Your task to perform on an android device: Open Wikipedia Image 0: 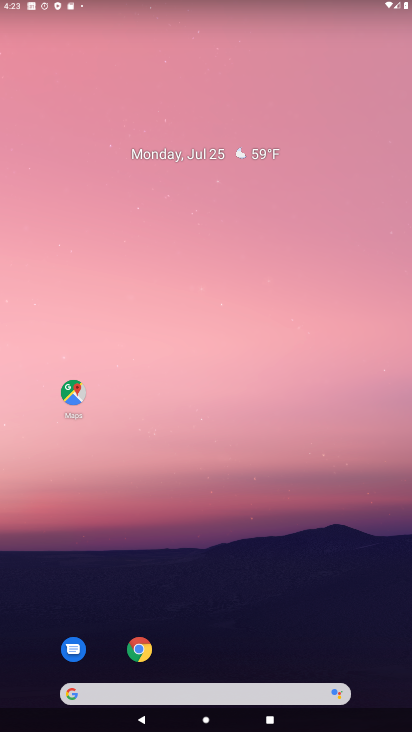
Step 0: drag from (209, 721) to (192, 103)
Your task to perform on an android device: Open Wikipedia Image 1: 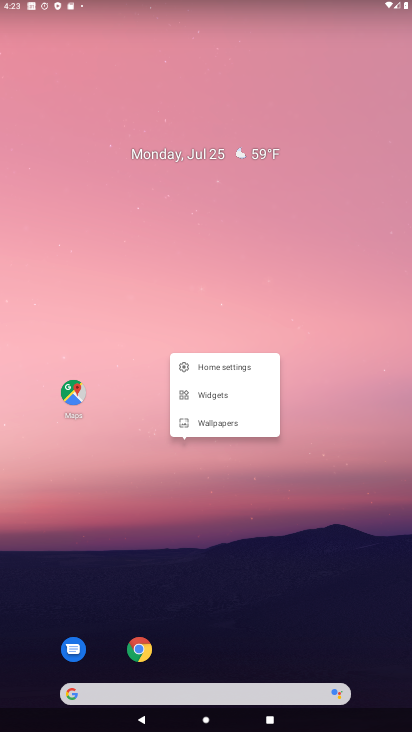
Step 1: drag from (371, 641) to (275, 62)
Your task to perform on an android device: Open Wikipedia Image 2: 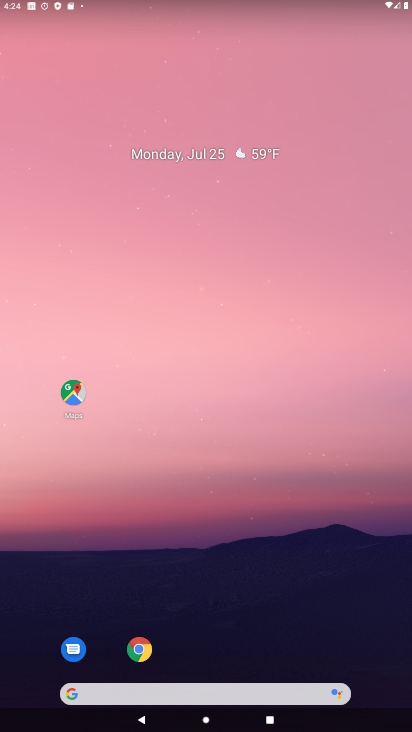
Step 2: drag from (237, 633) to (144, 57)
Your task to perform on an android device: Open Wikipedia Image 3: 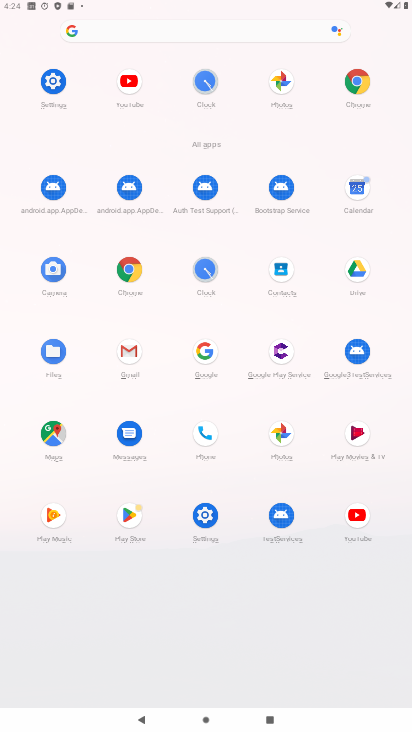
Step 3: click (361, 85)
Your task to perform on an android device: Open Wikipedia Image 4: 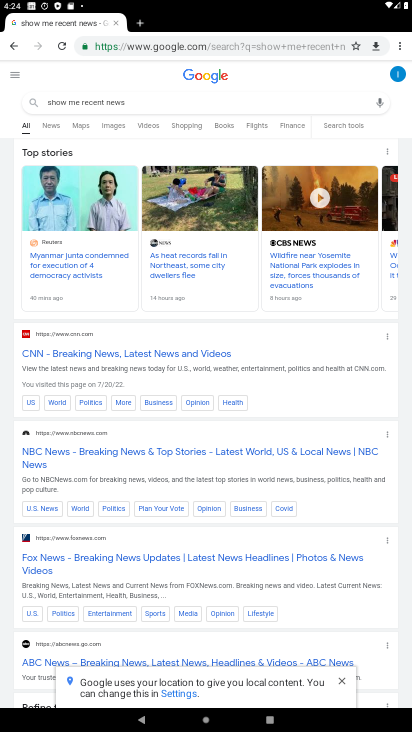
Step 4: click (141, 22)
Your task to perform on an android device: Open Wikipedia Image 5: 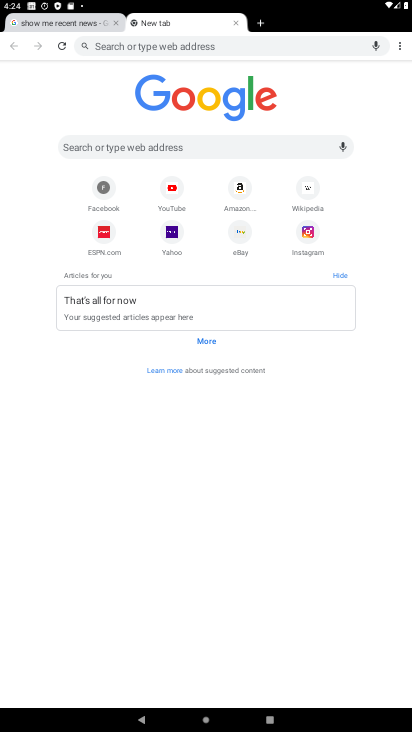
Step 5: click (315, 185)
Your task to perform on an android device: Open Wikipedia Image 6: 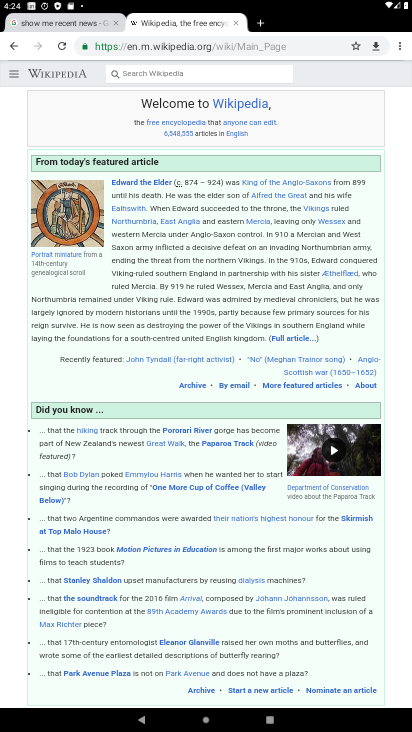
Step 6: task complete